Your task to perform on an android device: add a contact Image 0: 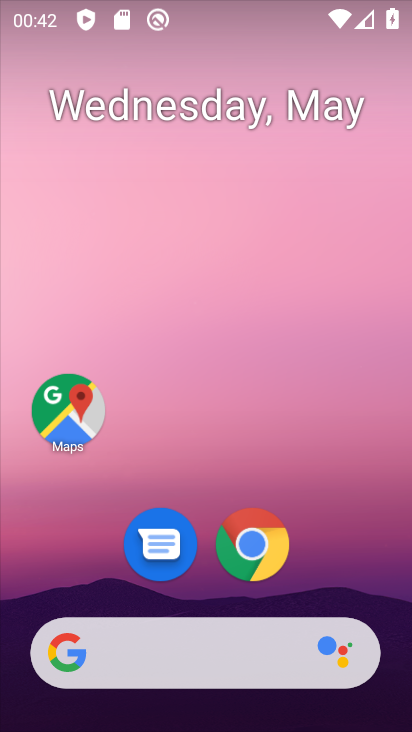
Step 0: drag from (361, 562) to (367, 124)
Your task to perform on an android device: add a contact Image 1: 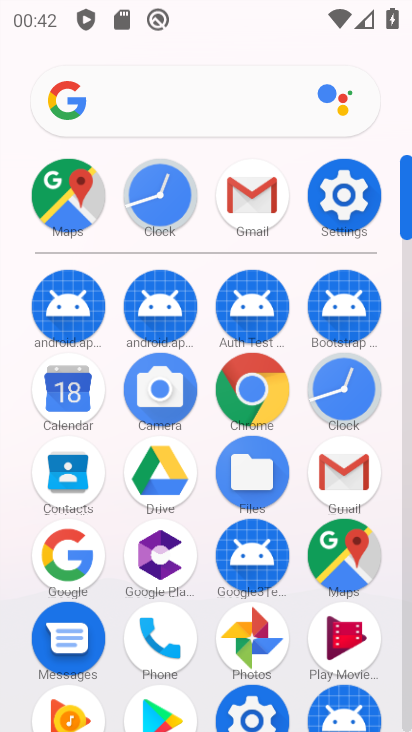
Step 1: click (70, 477)
Your task to perform on an android device: add a contact Image 2: 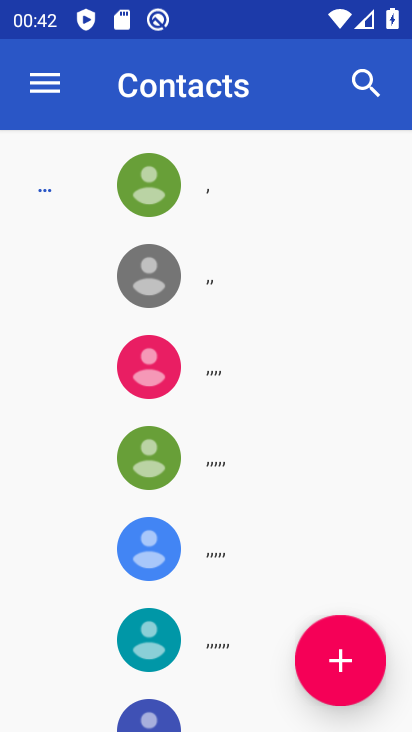
Step 2: click (336, 651)
Your task to perform on an android device: add a contact Image 3: 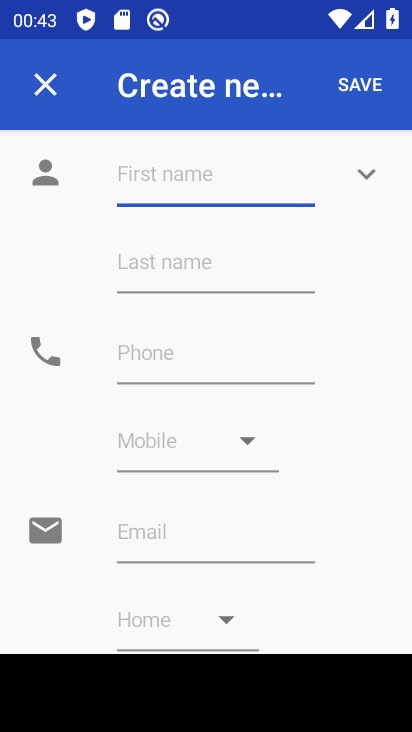
Step 3: type "python"
Your task to perform on an android device: add a contact Image 4: 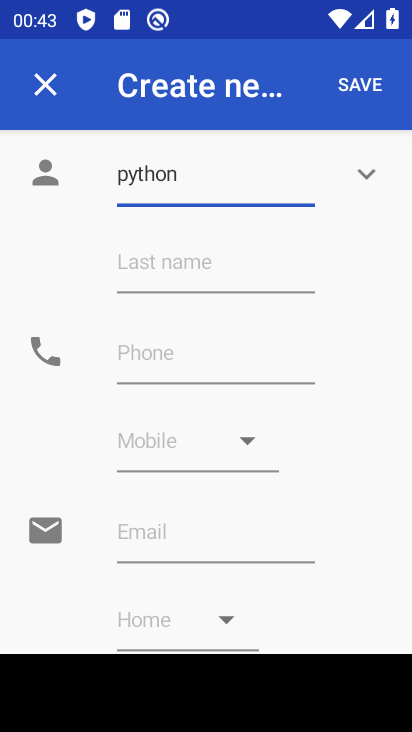
Step 4: click (354, 72)
Your task to perform on an android device: add a contact Image 5: 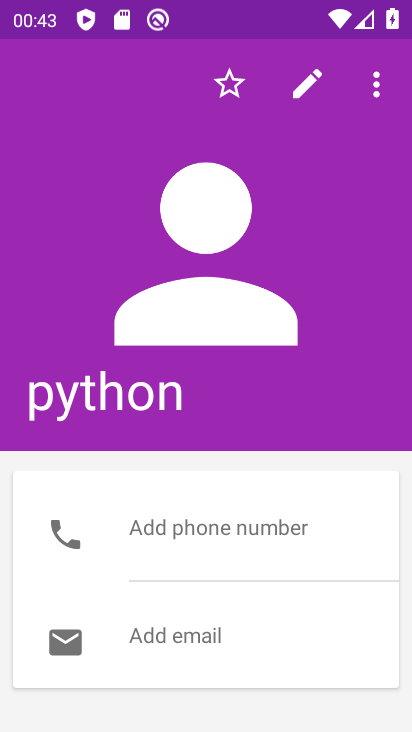
Step 5: task complete